Your task to perform on an android device: turn on bluetooth scan Image 0: 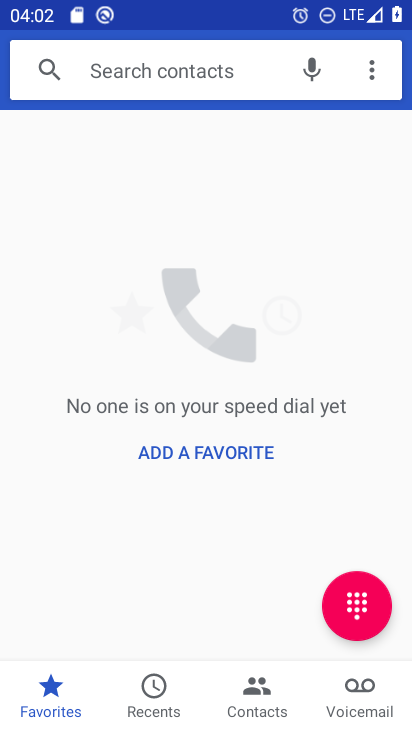
Step 0: press home button
Your task to perform on an android device: turn on bluetooth scan Image 1: 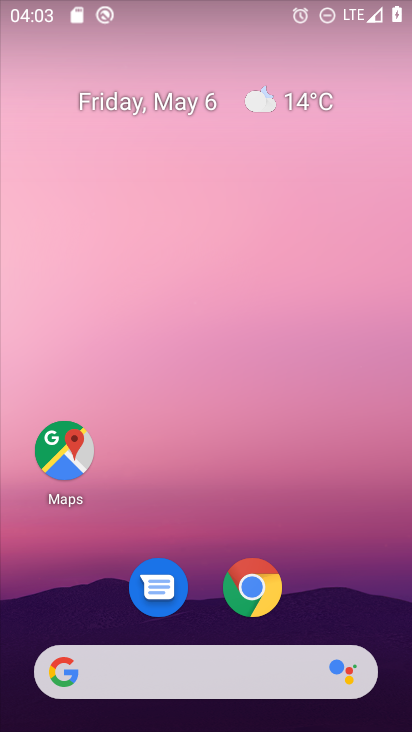
Step 1: drag from (322, 590) to (239, 42)
Your task to perform on an android device: turn on bluetooth scan Image 2: 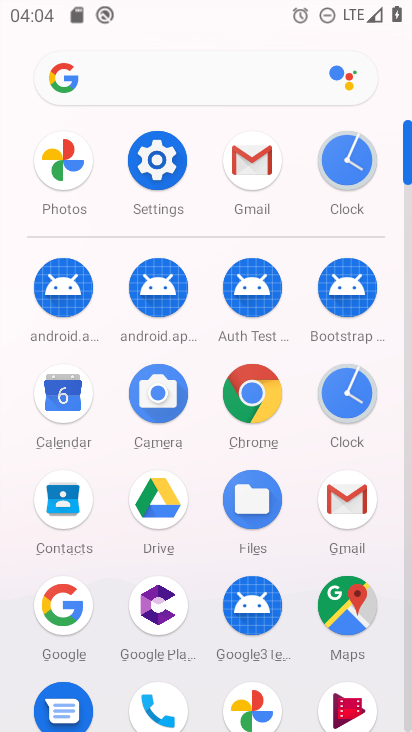
Step 2: click (150, 160)
Your task to perform on an android device: turn on bluetooth scan Image 3: 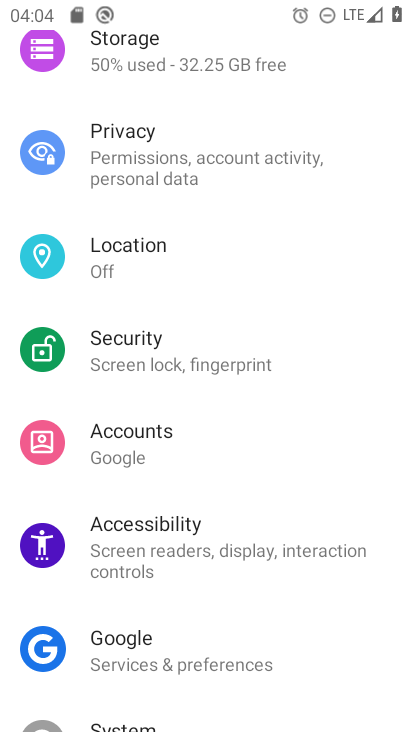
Step 3: click (201, 277)
Your task to perform on an android device: turn on bluetooth scan Image 4: 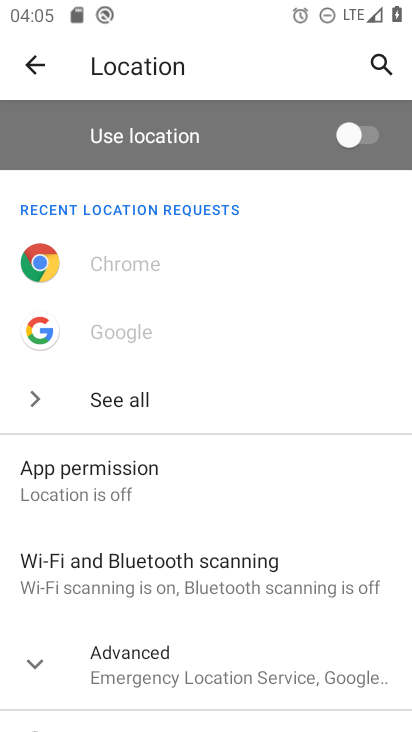
Step 4: click (181, 669)
Your task to perform on an android device: turn on bluetooth scan Image 5: 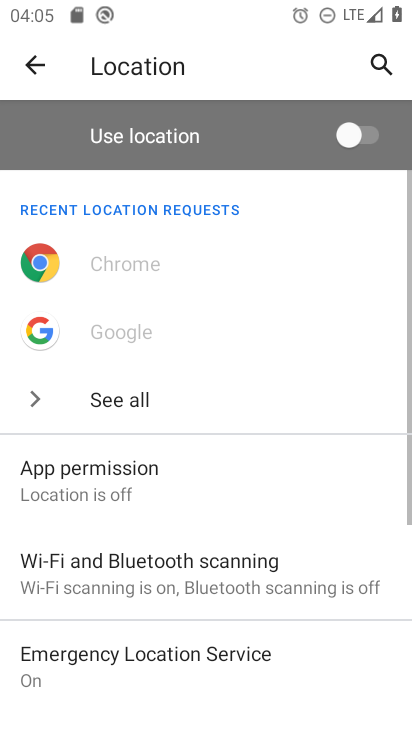
Step 5: click (208, 558)
Your task to perform on an android device: turn on bluetooth scan Image 6: 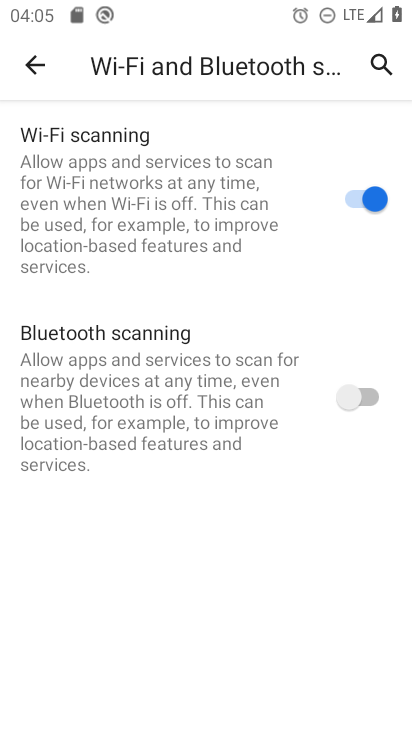
Step 6: click (355, 396)
Your task to perform on an android device: turn on bluetooth scan Image 7: 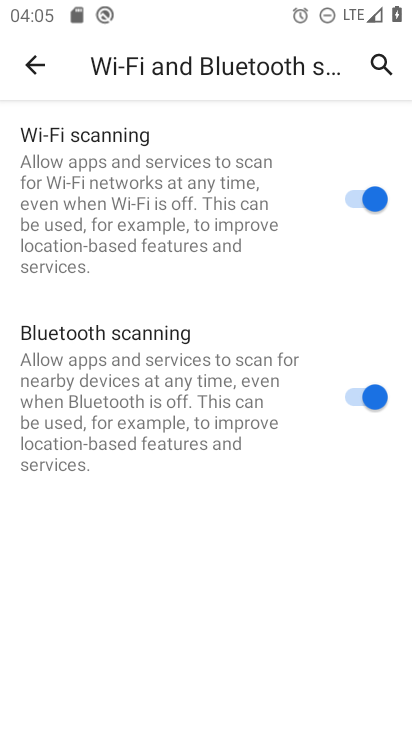
Step 7: task complete